Your task to perform on an android device: change the clock style Image 0: 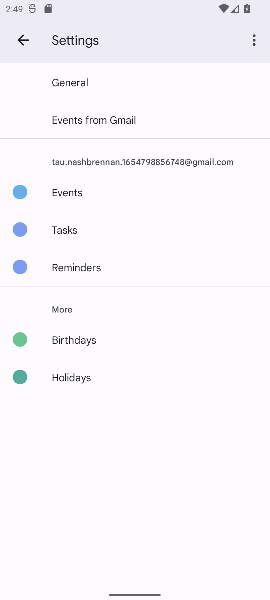
Step 0: press home button
Your task to perform on an android device: change the clock style Image 1: 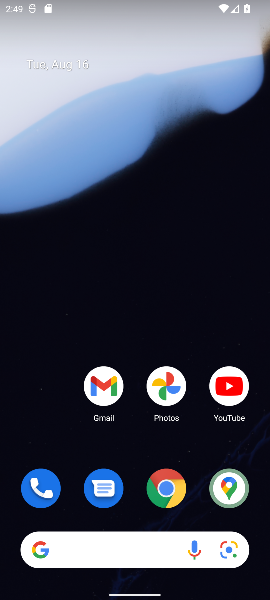
Step 1: drag from (50, 433) to (84, 151)
Your task to perform on an android device: change the clock style Image 2: 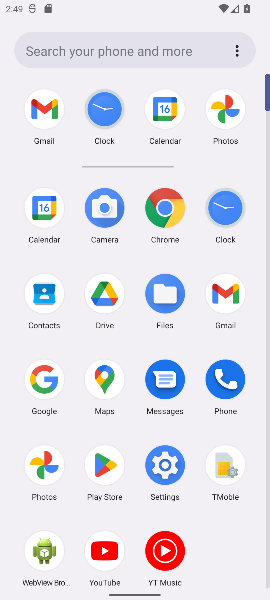
Step 2: click (220, 216)
Your task to perform on an android device: change the clock style Image 3: 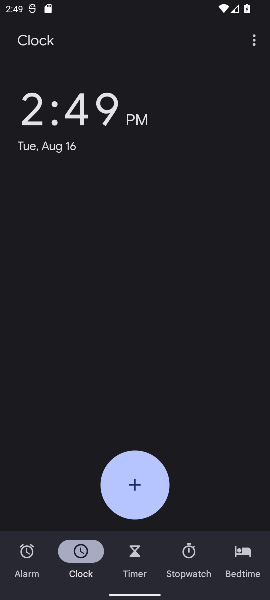
Step 3: task complete